Your task to perform on an android device: visit the assistant section in the google photos Image 0: 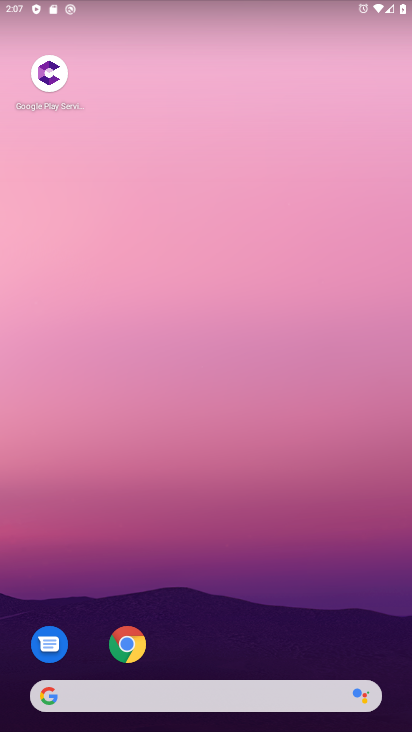
Step 0: drag from (200, 705) to (394, 448)
Your task to perform on an android device: visit the assistant section in the google photos Image 1: 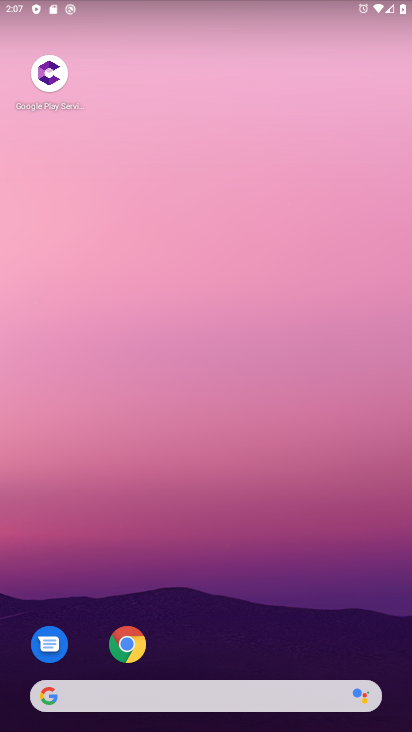
Step 1: drag from (253, 713) to (291, 6)
Your task to perform on an android device: visit the assistant section in the google photos Image 2: 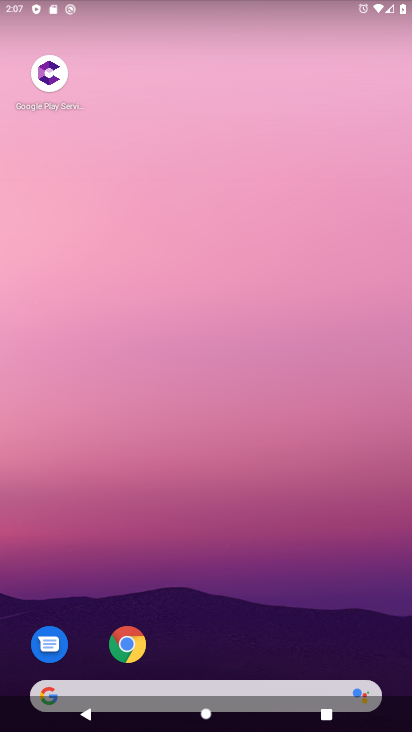
Step 2: drag from (270, 717) to (272, 2)
Your task to perform on an android device: visit the assistant section in the google photos Image 3: 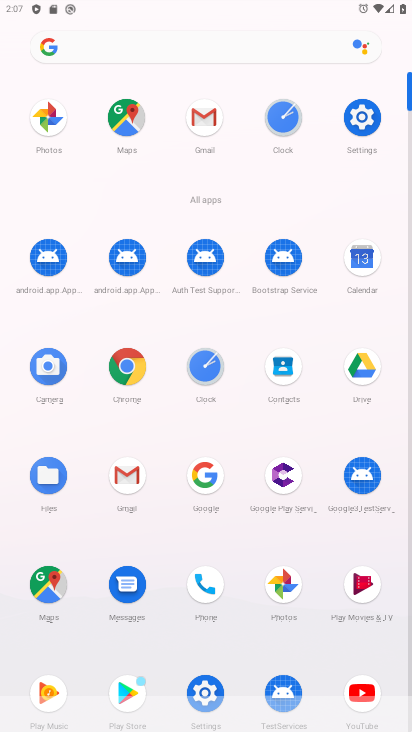
Step 3: click (49, 115)
Your task to perform on an android device: visit the assistant section in the google photos Image 4: 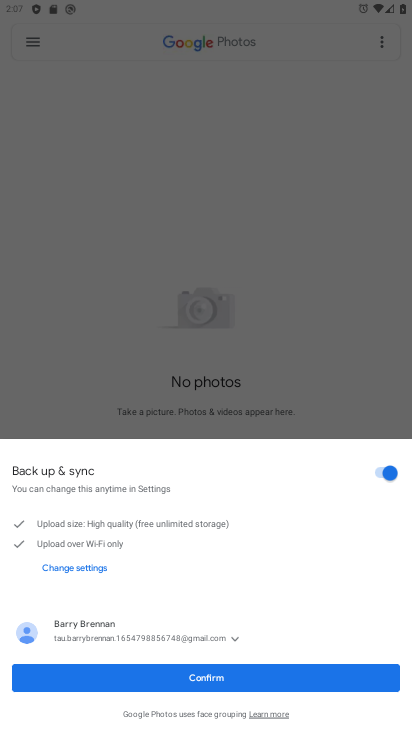
Step 4: click (299, 678)
Your task to perform on an android device: visit the assistant section in the google photos Image 5: 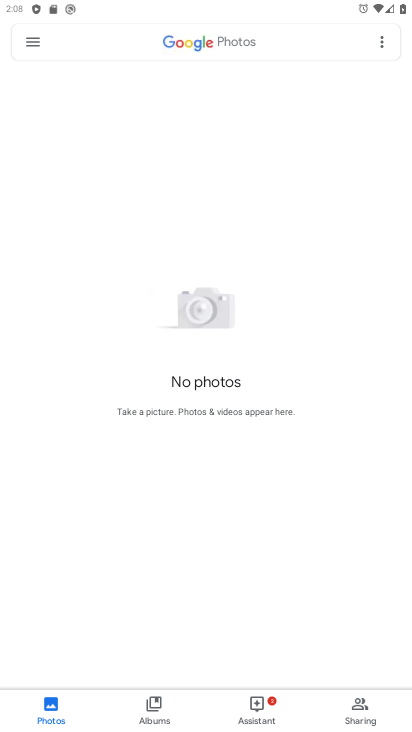
Step 5: click (250, 710)
Your task to perform on an android device: visit the assistant section in the google photos Image 6: 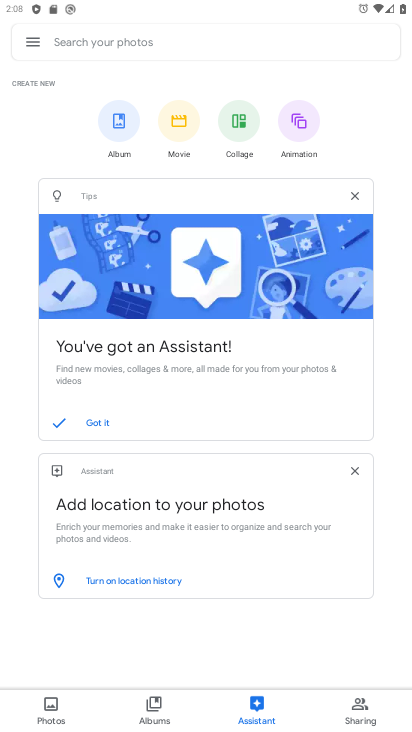
Step 6: task complete